Your task to perform on an android device: Go to display settings Image 0: 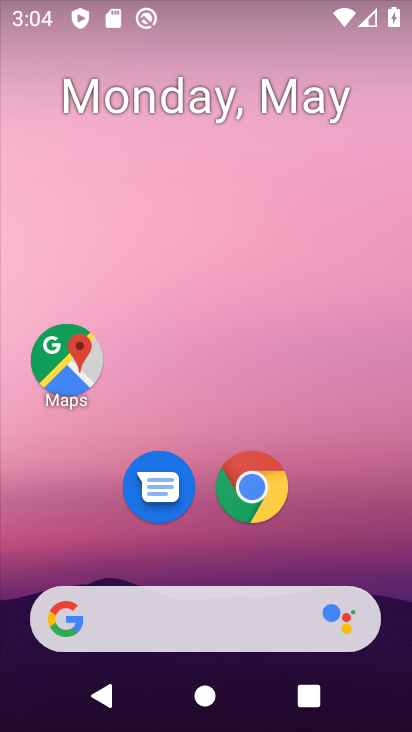
Step 0: drag from (222, 602) to (254, 71)
Your task to perform on an android device: Go to display settings Image 1: 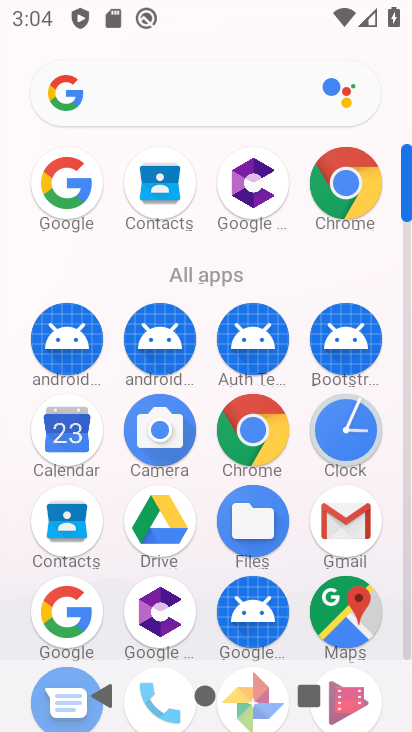
Step 1: drag from (205, 630) to (223, 228)
Your task to perform on an android device: Go to display settings Image 2: 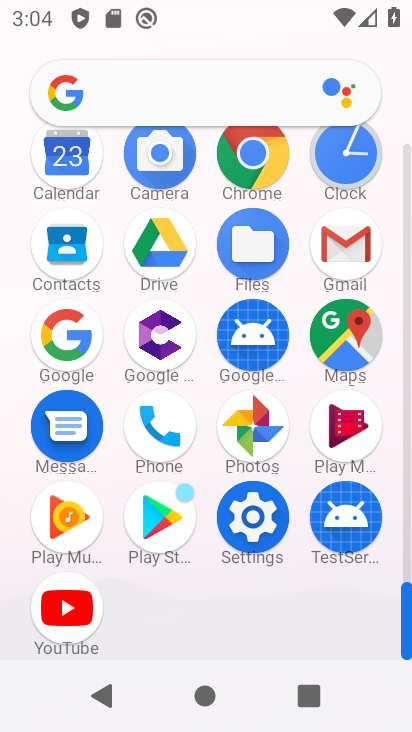
Step 2: click (255, 506)
Your task to perform on an android device: Go to display settings Image 3: 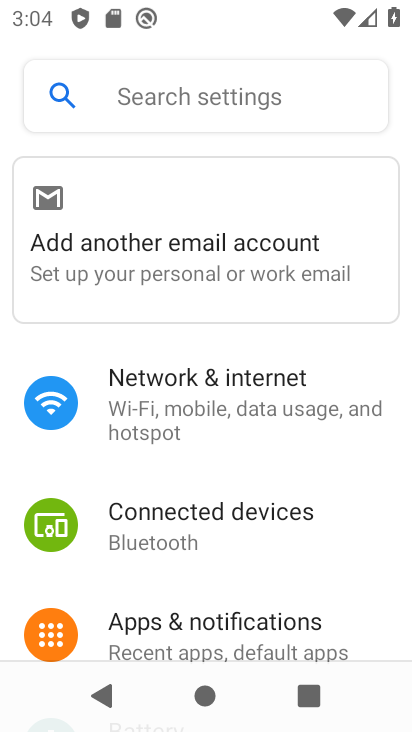
Step 3: drag from (198, 628) to (200, 243)
Your task to perform on an android device: Go to display settings Image 4: 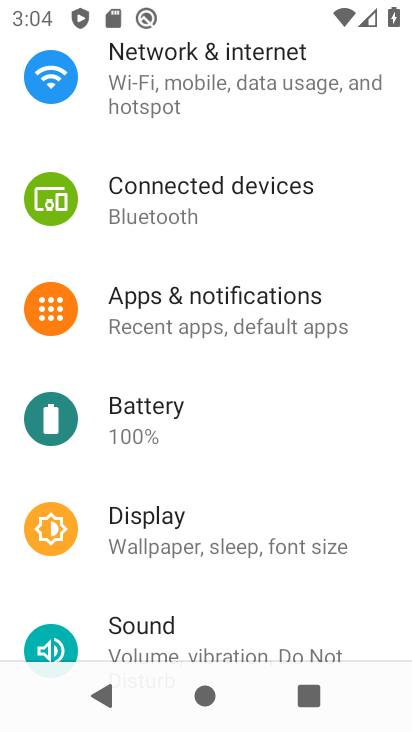
Step 4: click (208, 533)
Your task to perform on an android device: Go to display settings Image 5: 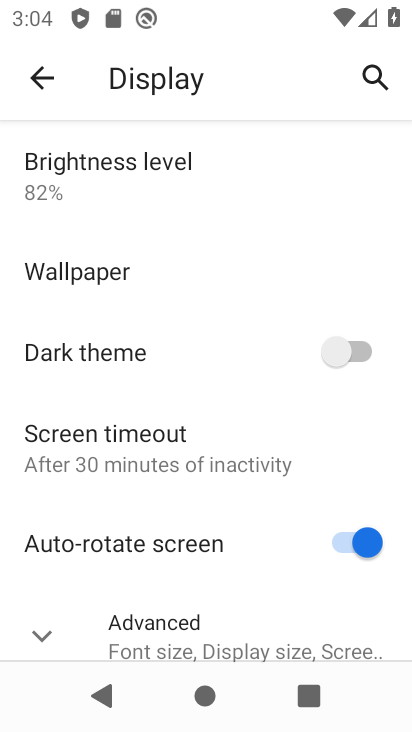
Step 5: click (195, 633)
Your task to perform on an android device: Go to display settings Image 6: 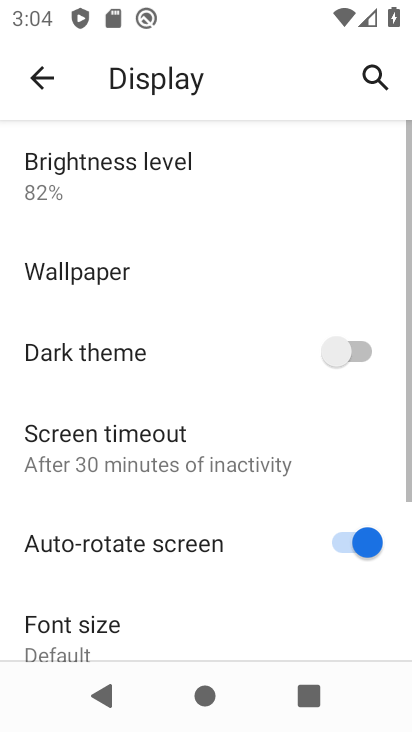
Step 6: task complete